Your task to perform on an android device: Open battery settings Image 0: 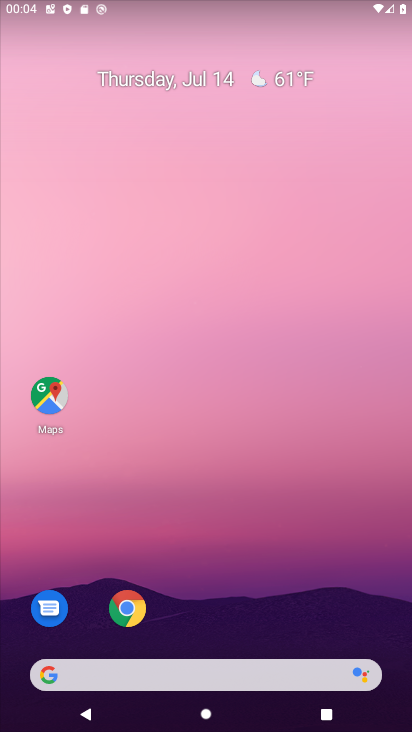
Step 0: click (274, 342)
Your task to perform on an android device: Open battery settings Image 1: 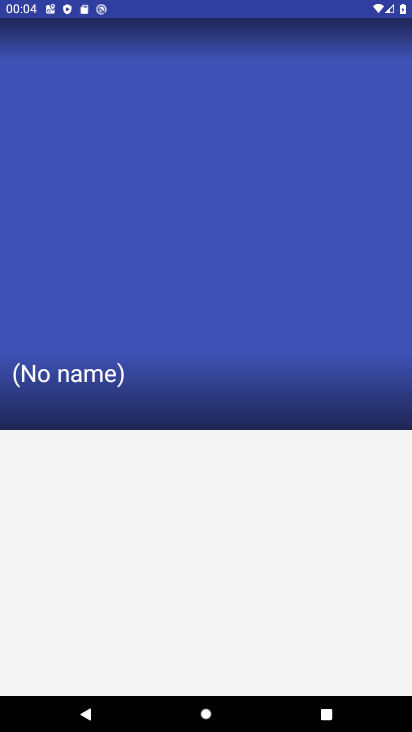
Step 1: drag from (209, 622) to (235, 341)
Your task to perform on an android device: Open battery settings Image 2: 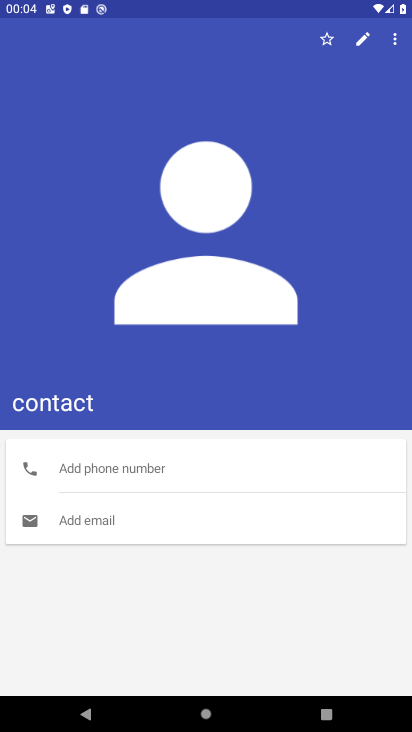
Step 2: press home button
Your task to perform on an android device: Open battery settings Image 3: 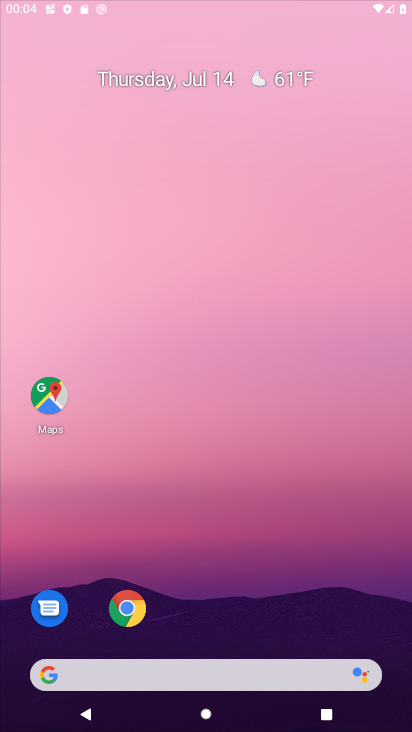
Step 3: drag from (189, 613) to (224, 354)
Your task to perform on an android device: Open battery settings Image 4: 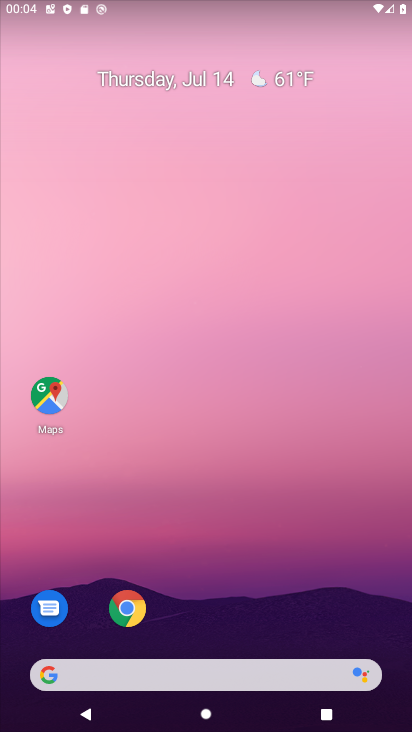
Step 4: drag from (191, 573) to (214, 48)
Your task to perform on an android device: Open battery settings Image 5: 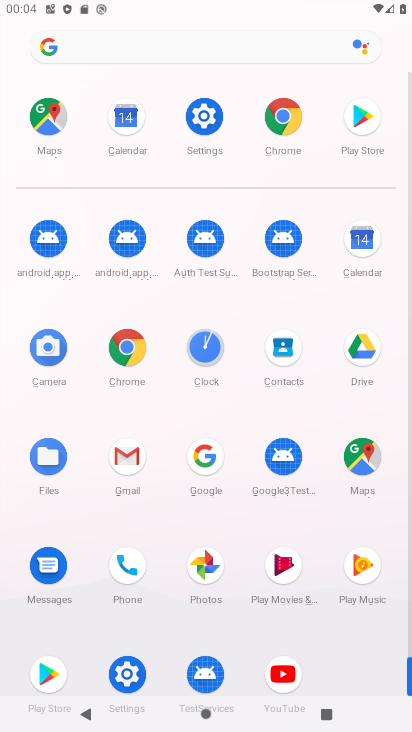
Step 5: click (119, 674)
Your task to perform on an android device: Open battery settings Image 6: 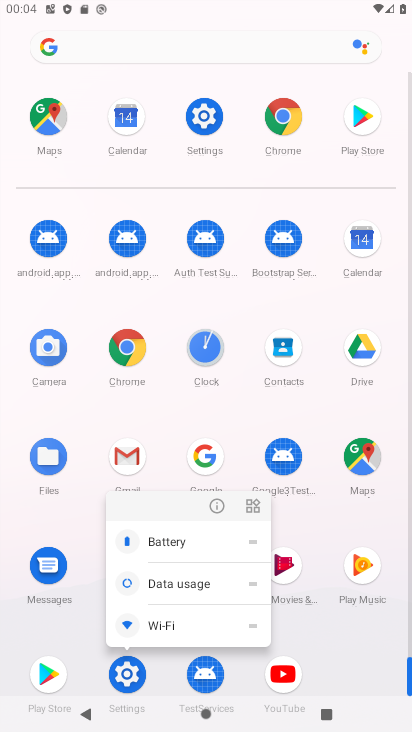
Step 6: click (216, 503)
Your task to perform on an android device: Open battery settings Image 7: 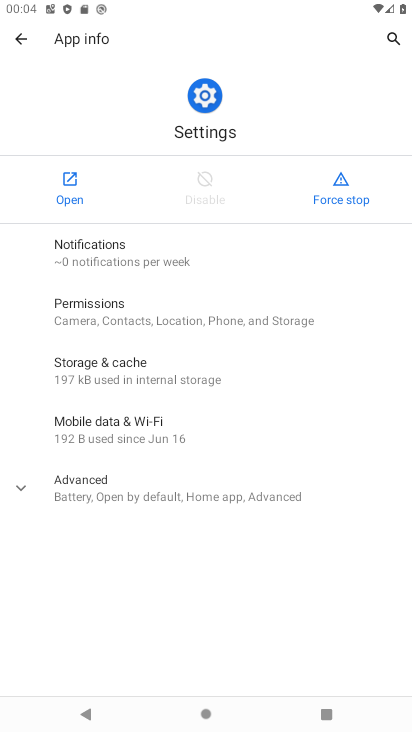
Step 7: click (71, 184)
Your task to perform on an android device: Open battery settings Image 8: 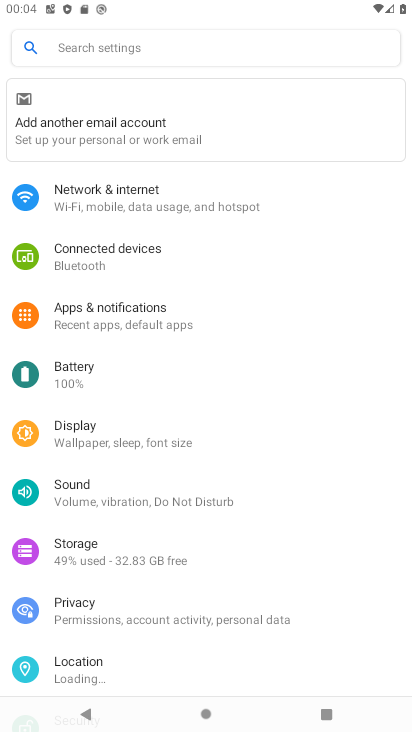
Step 8: click (137, 382)
Your task to perform on an android device: Open battery settings Image 9: 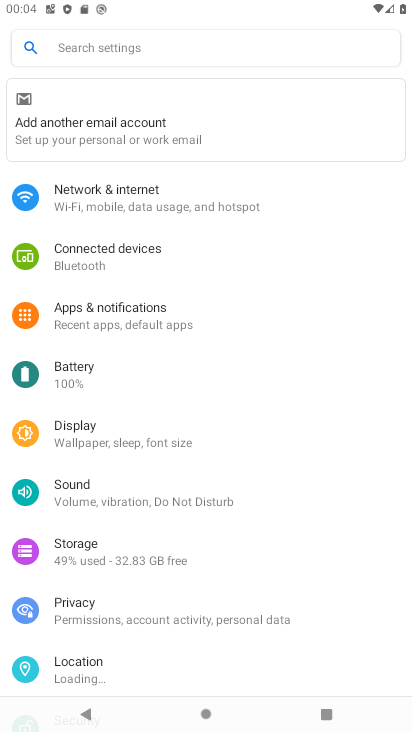
Step 9: click (136, 383)
Your task to perform on an android device: Open battery settings Image 10: 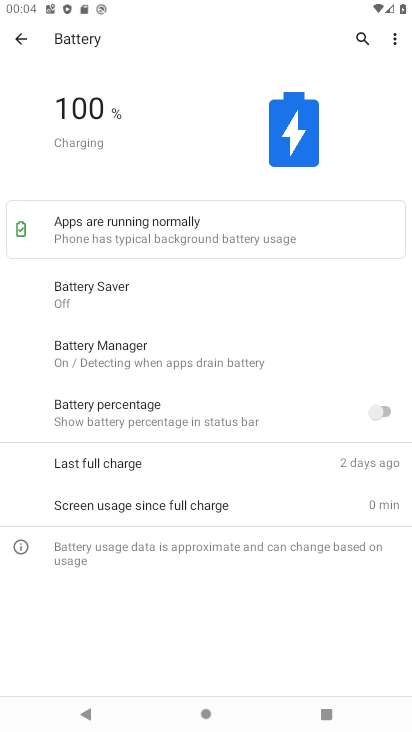
Step 10: task complete